Your task to perform on an android device: Go to accessibility settings Image 0: 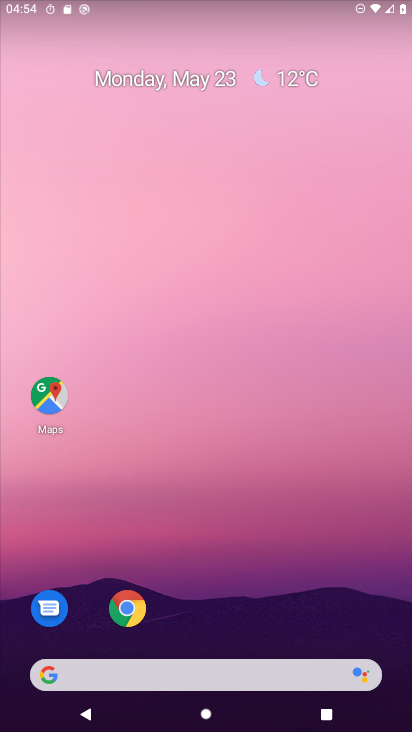
Step 0: drag from (269, 444) to (181, 2)
Your task to perform on an android device: Go to accessibility settings Image 1: 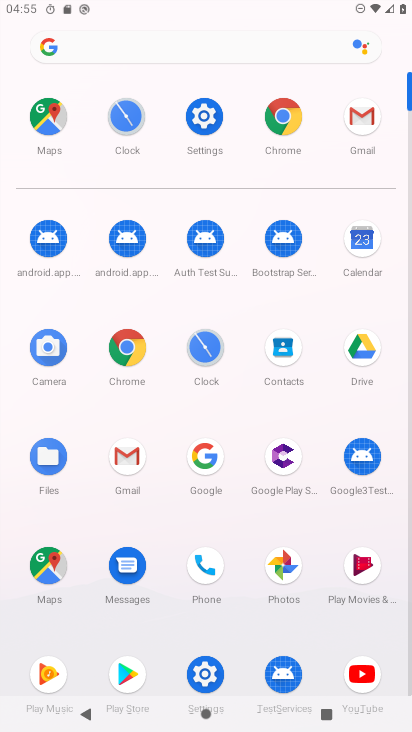
Step 1: click (199, 82)
Your task to perform on an android device: Go to accessibility settings Image 2: 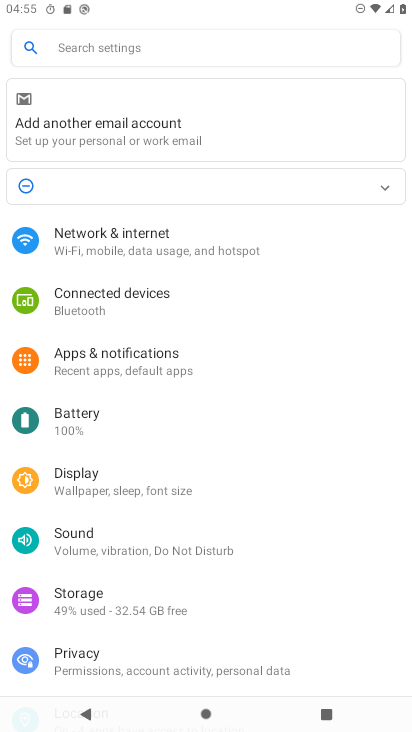
Step 2: drag from (227, 488) to (191, 145)
Your task to perform on an android device: Go to accessibility settings Image 3: 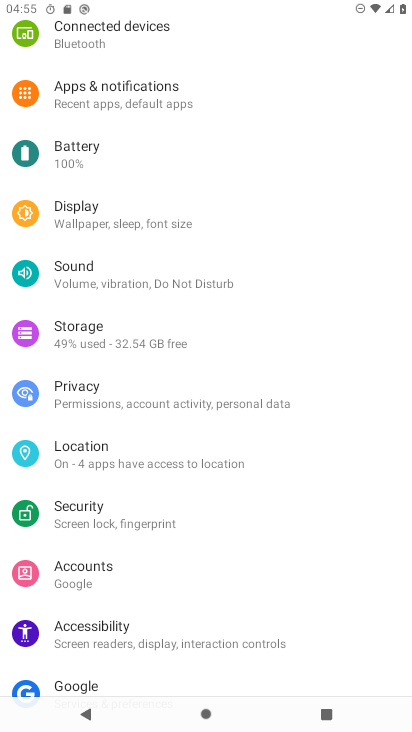
Step 3: click (201, 630)
Your task to perform on an android device: Go to accessibility settings Image 4: 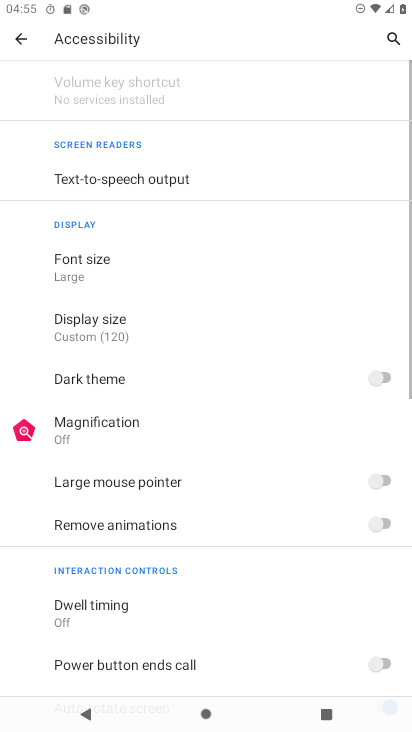
Step 4: task complete